Your task to perform on an android device: remove spam from my inbox in the gmail app Image 0: 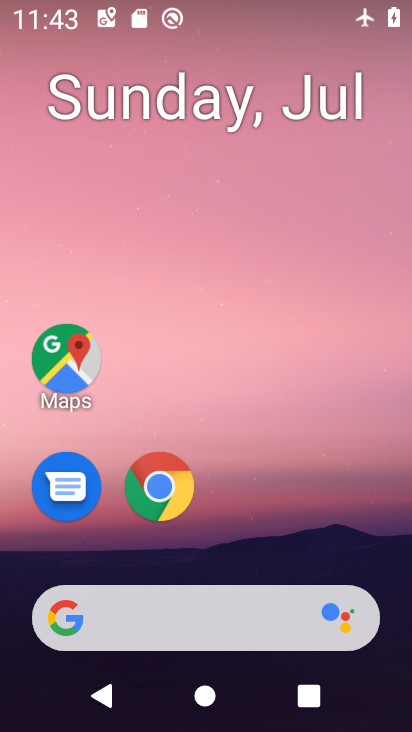
Step 0: drag from (374, 545) to (362, 64)
Your task to perform on an android device: remove spam from my inbox in the gmail app Image 1: 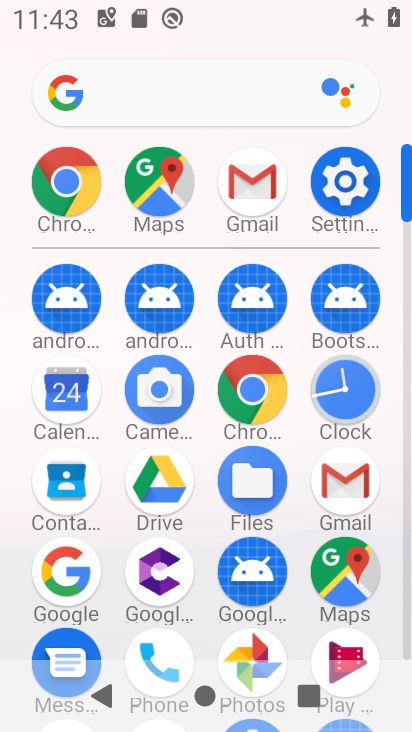
Step 1: click (253, 219)
Your task to perform on an android device: remove spam from my inbox in the gmail app Image 2: 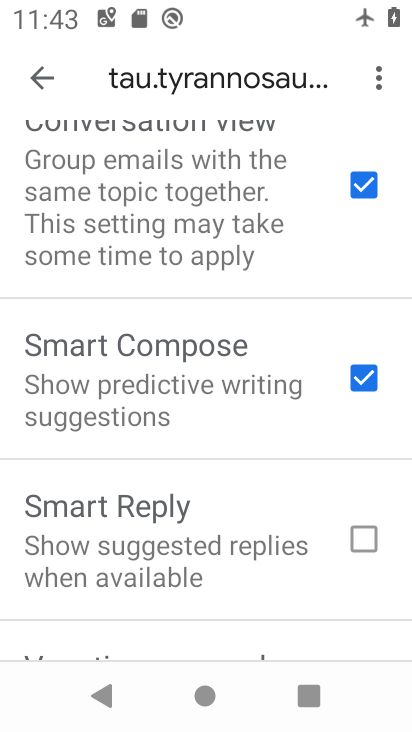
Step 2: press back button
Your task to perform on an android device: remove spam from my inbox in the gmail app Image 3: 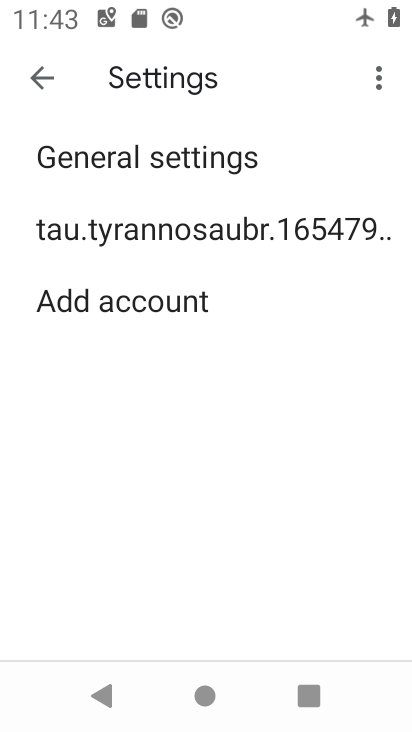
Step 3: click (53, 75)
Your task to perform on an android device: remove spam from my inbox in the gmail app Image 4: 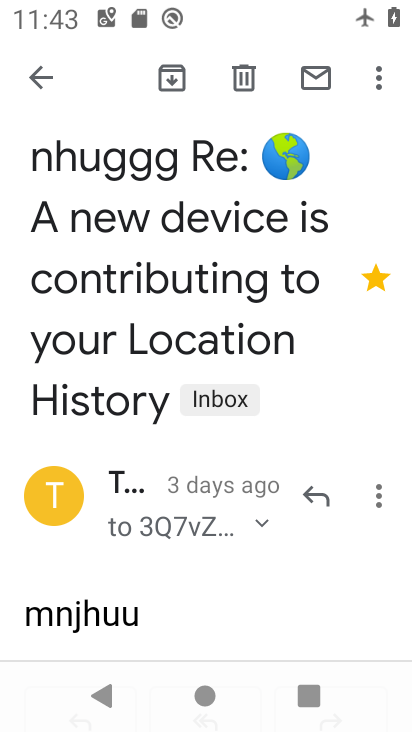
Step 4: click (53, 75)
Your task to perform on an android device: remove spam from my inbox in the gmail app Image 5: 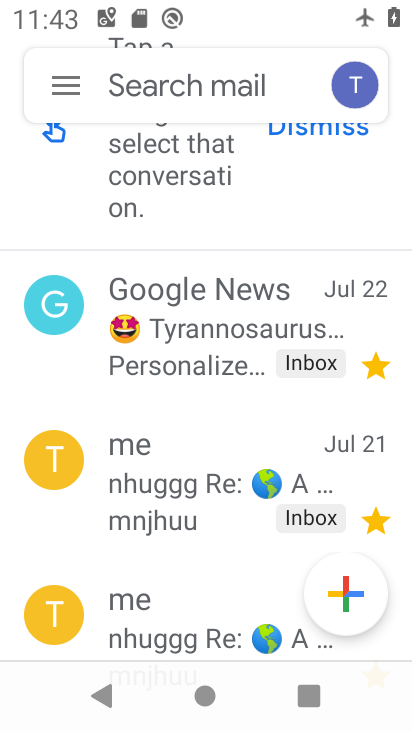
Step 5: click (73, 86)
Your task to perform on an android device: remove spam from my inbox in the gmail app Image 6: 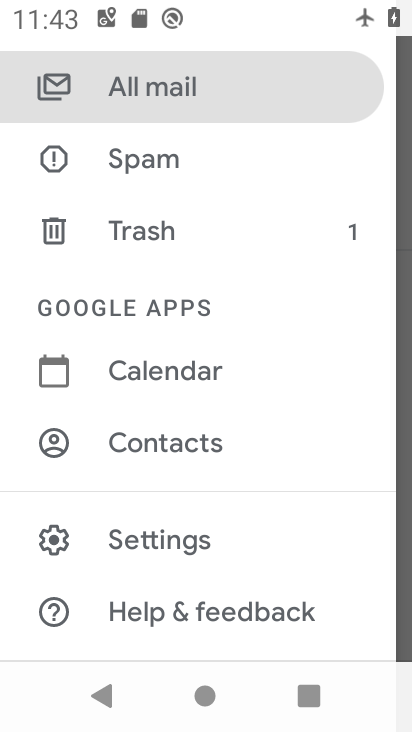
Step 6: drag from (258, 183) to (277, 443)
Your task to perform on an android device: remove spam from my inbox in the gmail app Image 7: 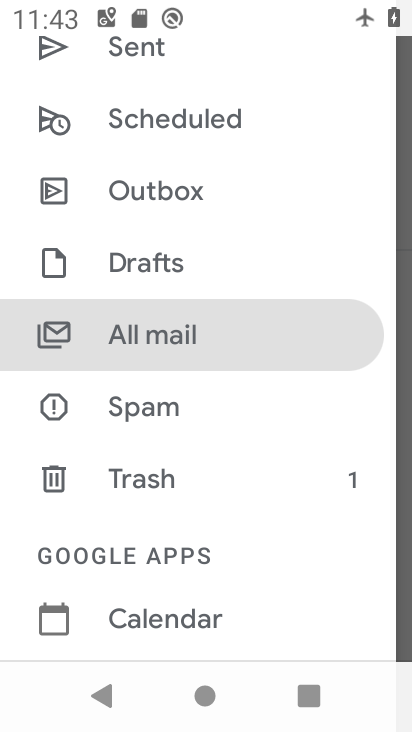
Step 7: drag from (262, 169) to (250, 337)
Your task to perform on an android device: remove spam from my inbox in the gmail app Image 8: 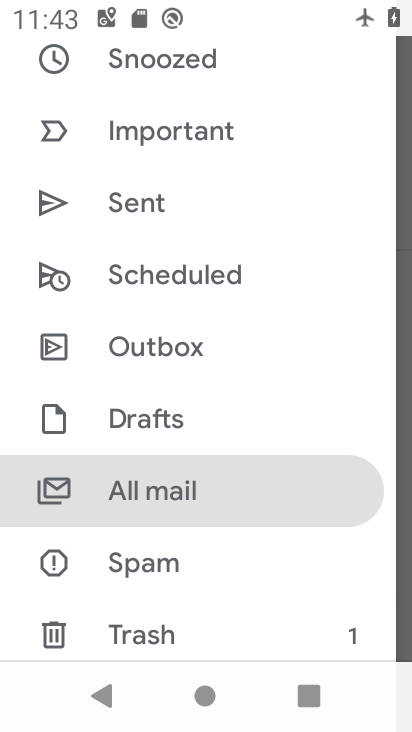
Step 8: click (159, 557)
Your task to perform on an android device: remove spam from my inbox in the gmail app Image 9: 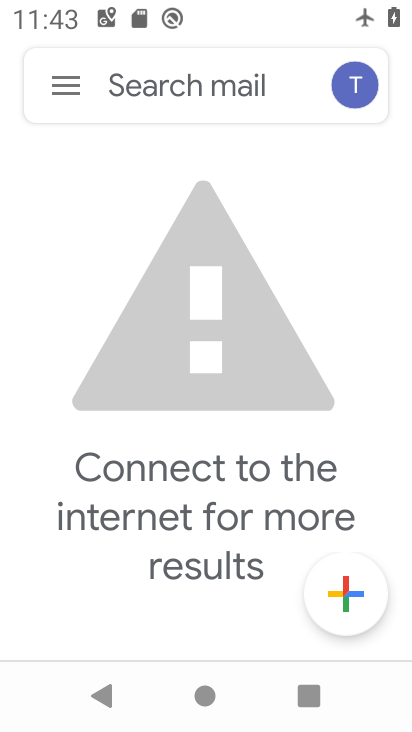
Step 9: task complete